Your task to perform on an android device: Open settings Image 0: 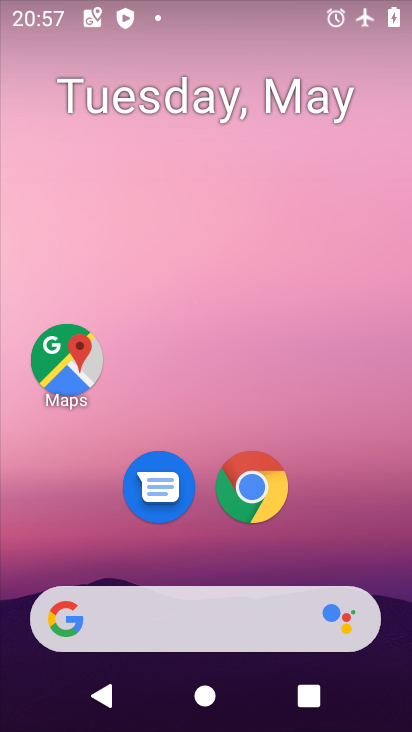
Step 0: drag from (336, 537) to (231, 72)
Your task to perform on an android device: Open settings Image 1: 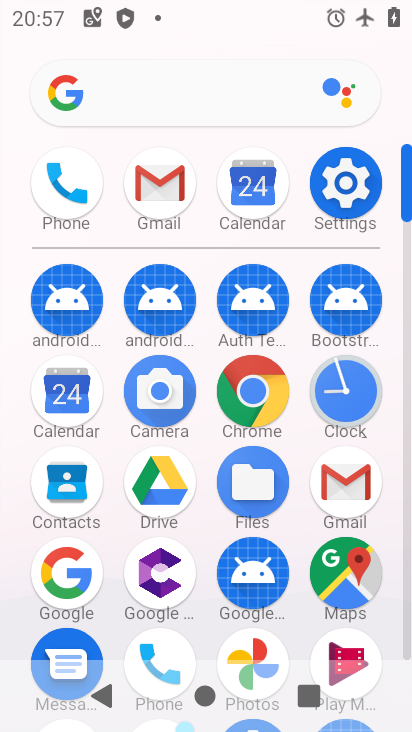
Step 1: click (344, 174)
Your task to perform on an android device: Open settings Image 2: 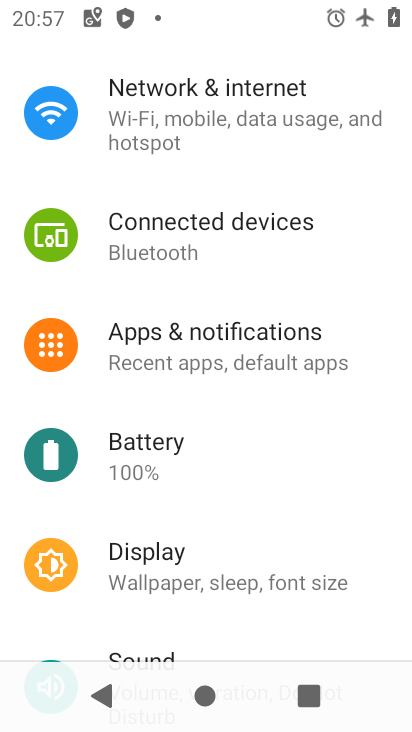
Step 2: task complete